Your task to perform on an android device: Open Wikipedia Image 0: 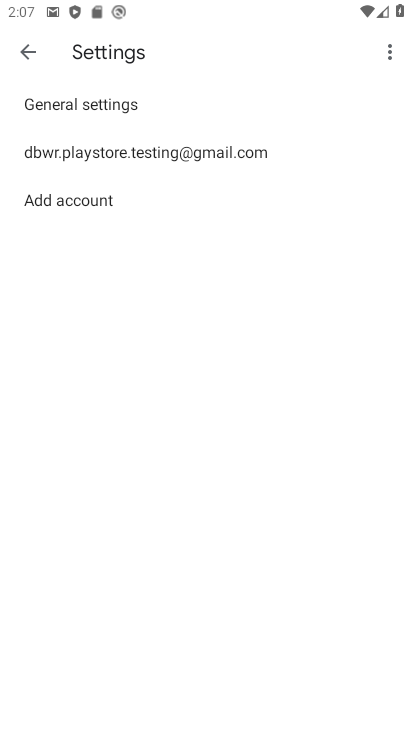
Step 0: press home button
Your task to perform on an android device: Open Wikipedia Image 1: 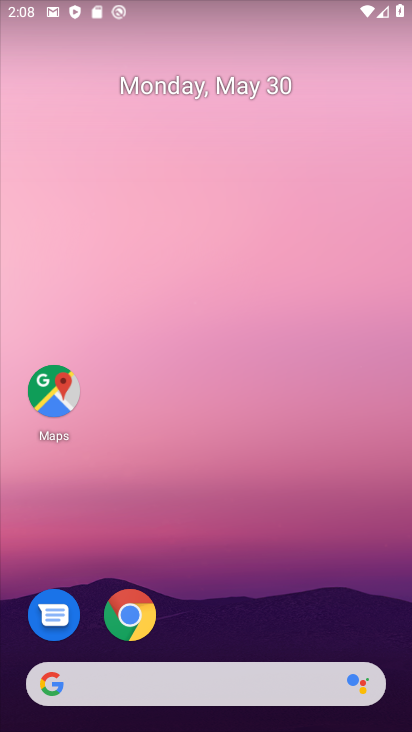
Step 1: click (127, 645)
Your task to perform on an android device: Open Wikipedia Image 2: 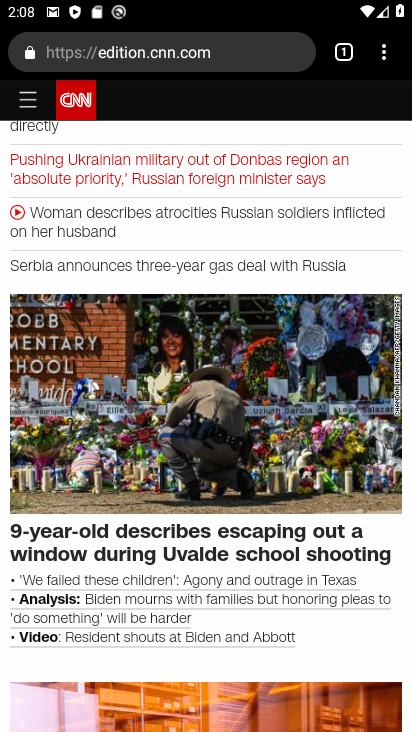
Step 2: click (385, 60)
Your task to perform on an android device: Open Wikipedia Image 3: 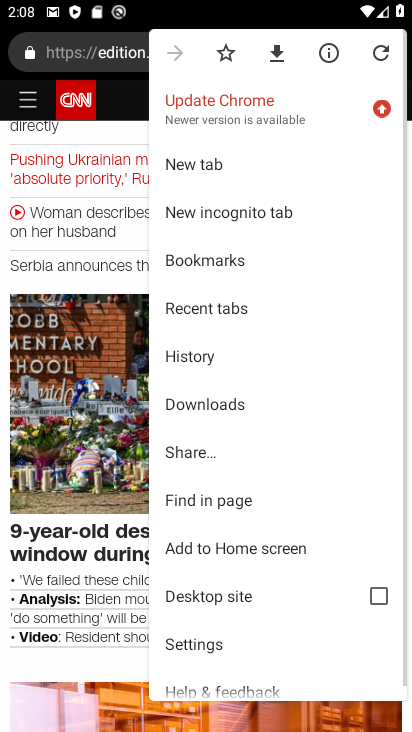
Step 3: click (269, 172)
Your task to perform on an android device: Open Wikipedia Image 4: 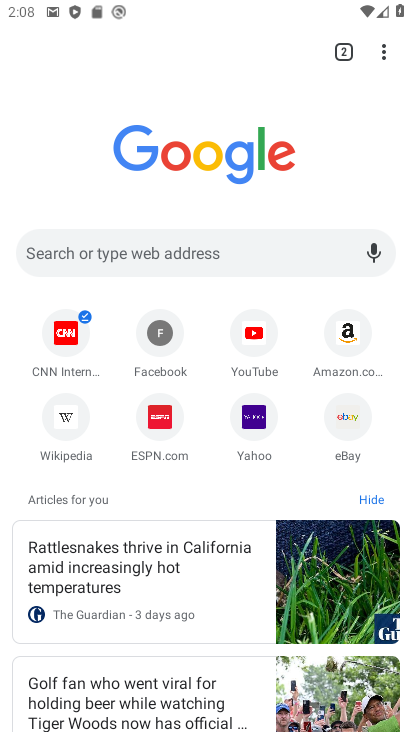
Step 4: click (66, 418)
Your task to perform on an android device: Open Wikipedia Image 5: 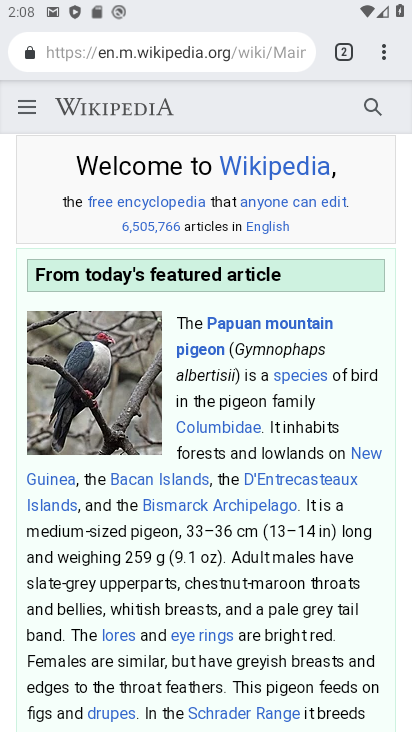
Step 5: task complete